Your task to perform on an android device: turn pop-ups on in chrome Image 0: 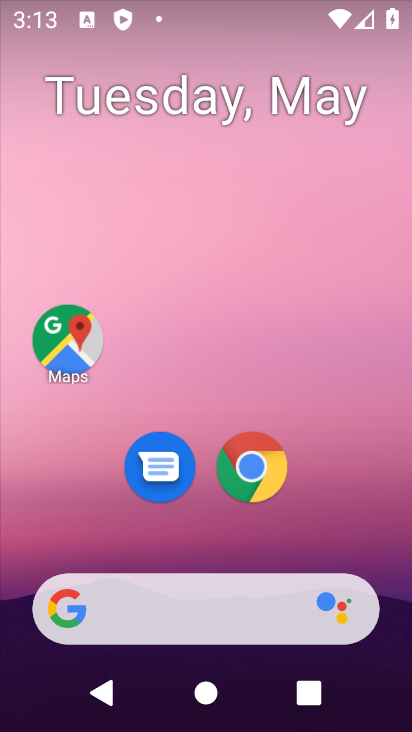
Step 0: task complete